Your task to perform on an android device: open app "Facebook Messenger" (install if not already installed) and go to login screen Image 0: 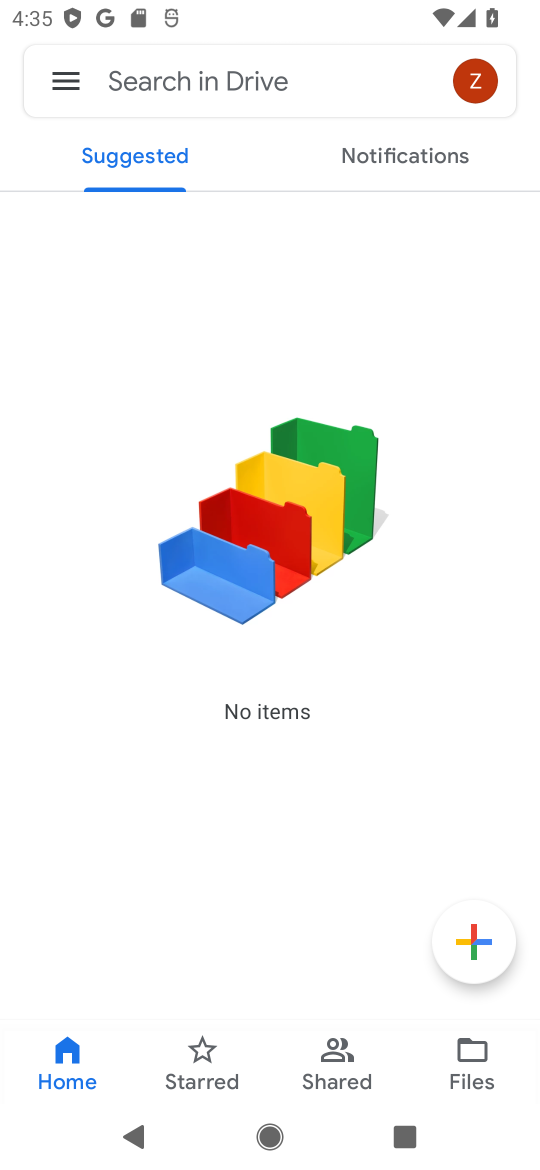
Step 0: press home button
Your task to perform on an android device: open app "Facebook Messenger" (install if not already installed) and go to login screen Image 1: 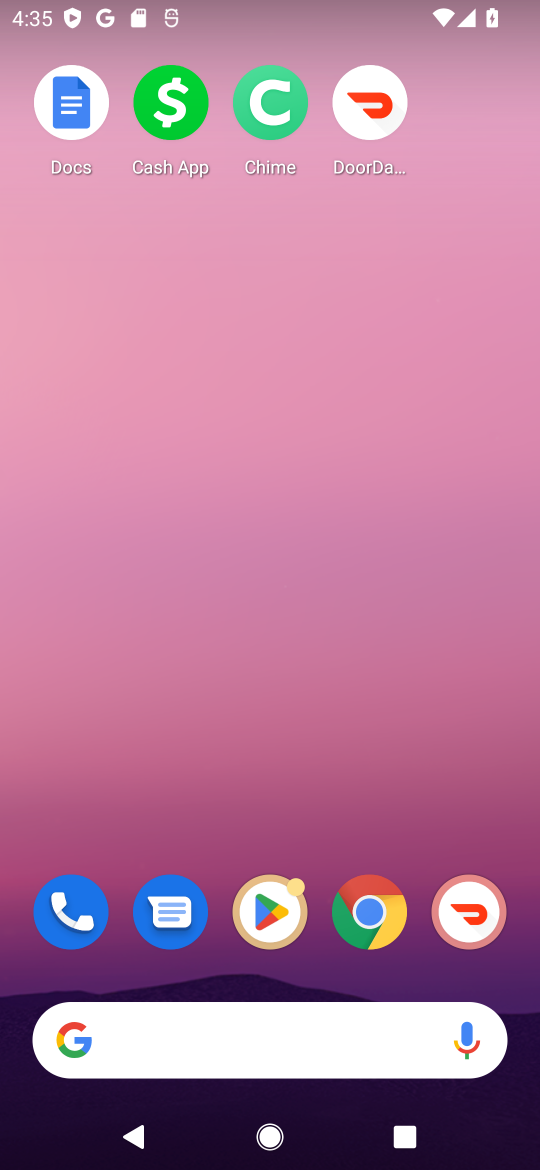
Step 1: drag from (306, 931) to (370, 161)
Your task to perform on an android device: open app "Facebook Messenger" (install if not already installed) and go to login screen Image 2: 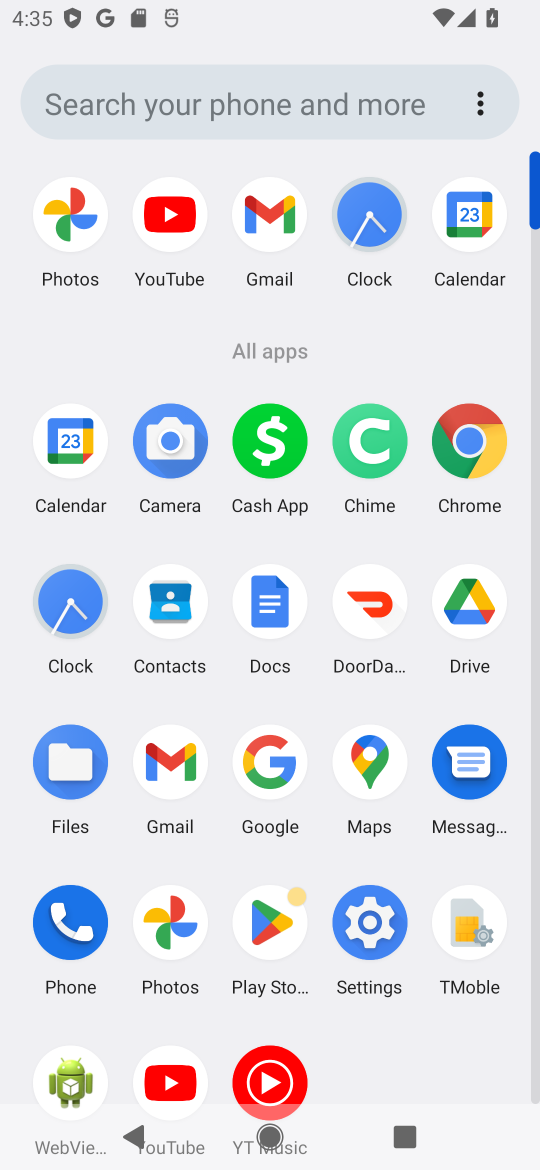
Step 2: click (271, 923)
Your task to perform on an android device: open app "Facebook Messenger" (install if not already installed) and go to login screen Image 3: 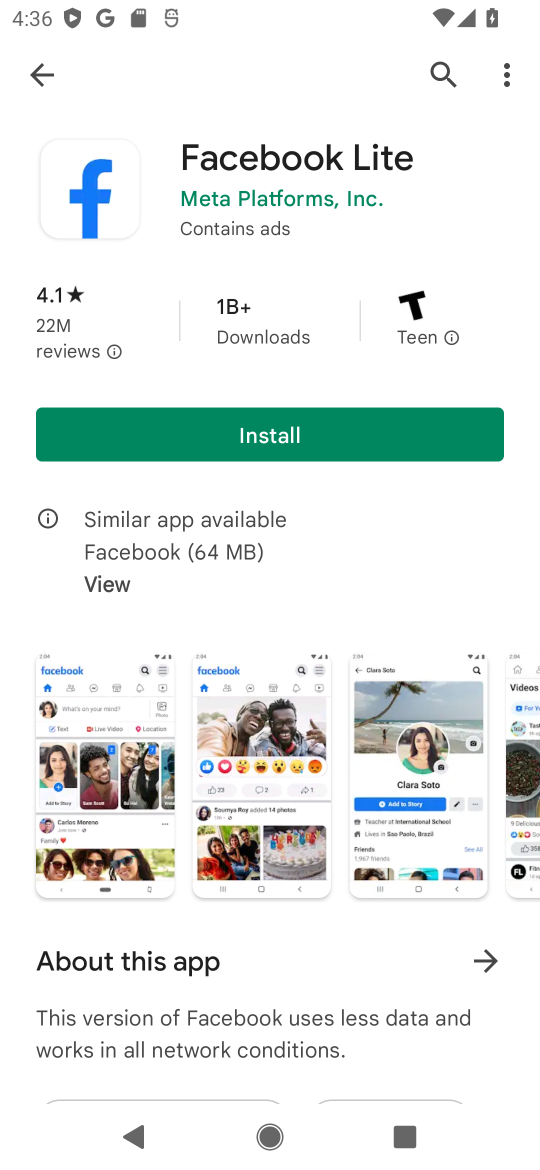
Step 3: click (31, 87)
Your task to perform on an android device: open app "Facebook Messenger" (install if not already installed) and go to login screen Image 4: 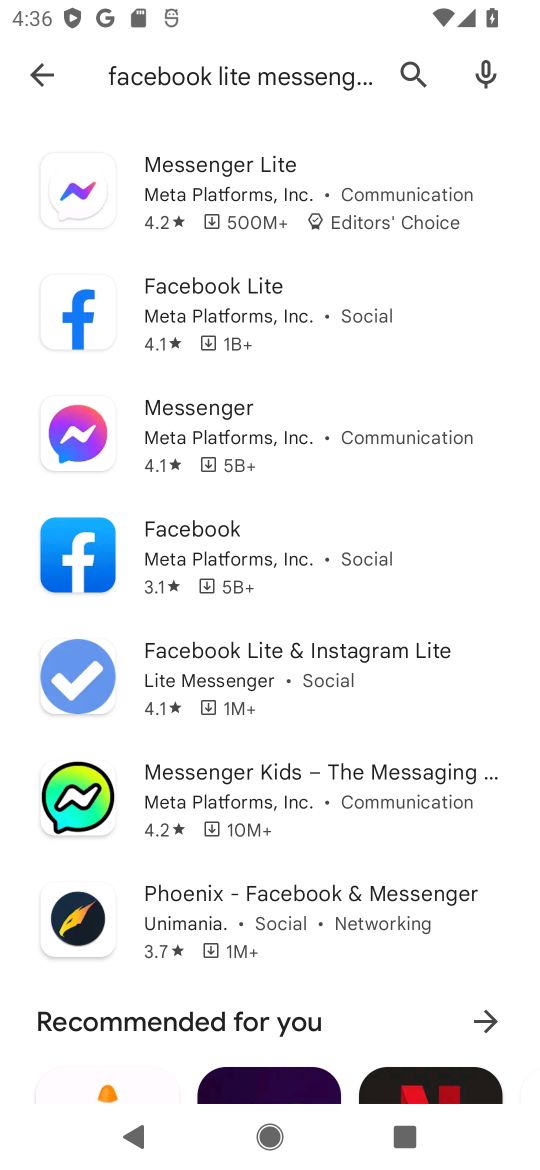
Step 4: click (154, 190)
Your task to perform on an android device: open app "Facebook Messenger" (install if not already installed) and go to login screen Image 5: 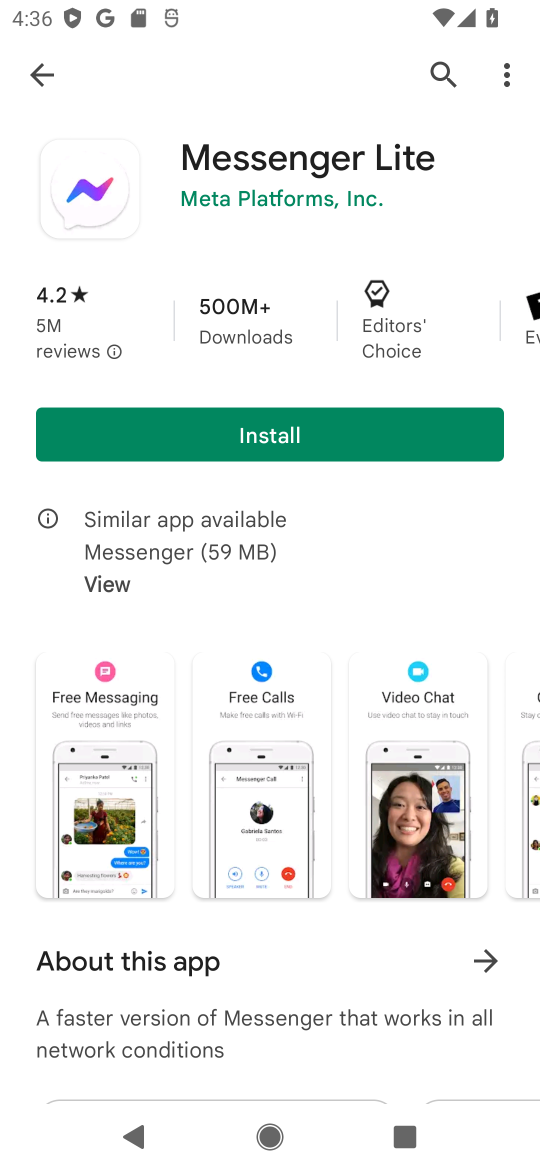
Step 5: click (314, 411)
Your task to perform on an android device: open app "Facebook Messenger" (install if not already installed) and go to login screen Image 6: 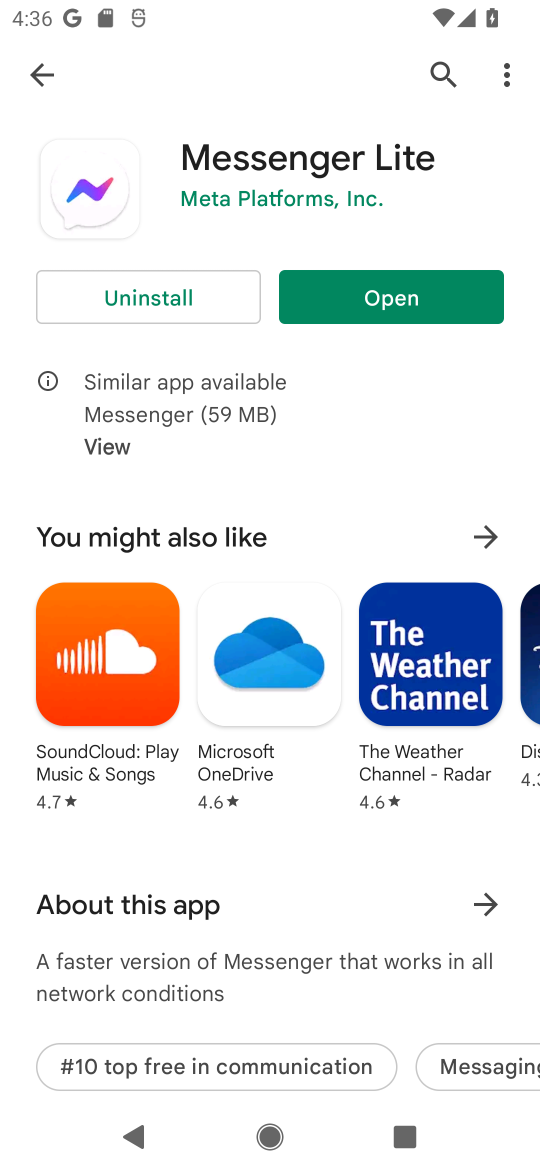
Step 6: task complete